Your task to perform on an android device: Open a new Chrome window Image 0: 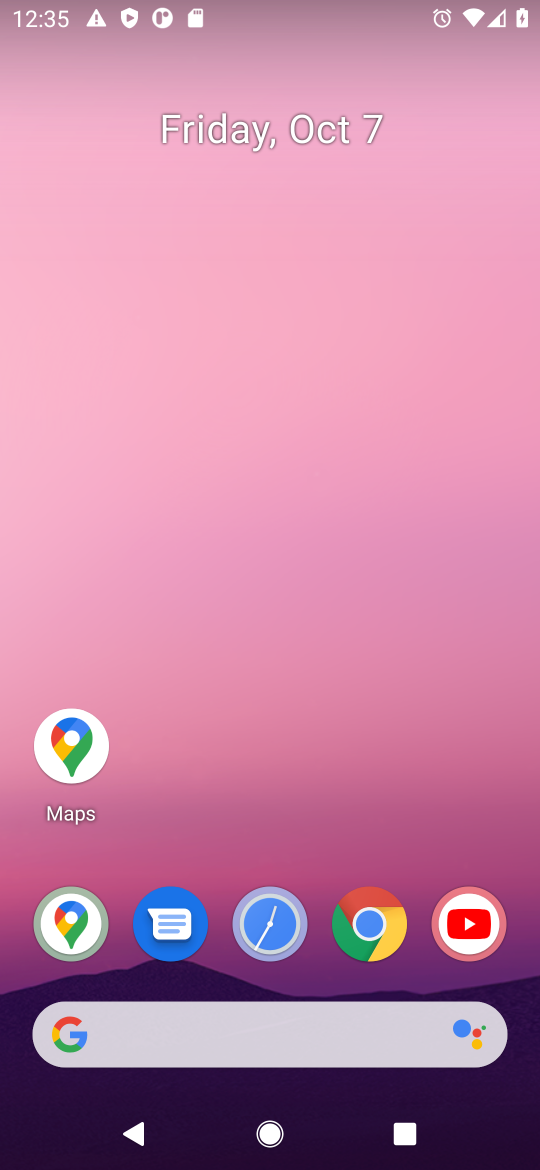
Step 0: click (356, 926)
Your task to perform on an android device: Open a new Chrome window Image 1: 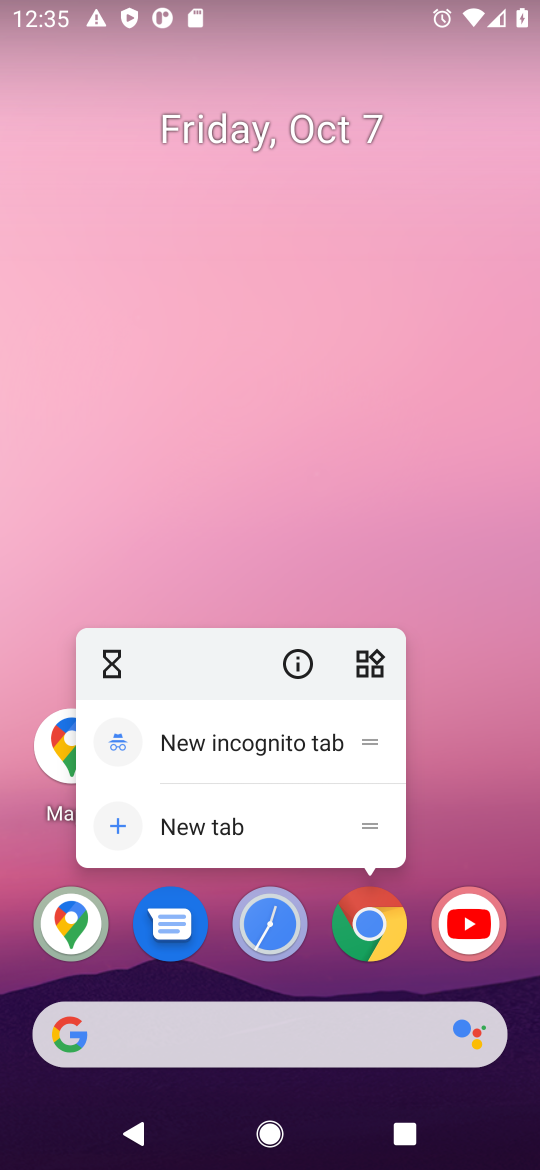
Step 1: click (375, 910)
Your task to perform on an android device: Open a new Chrome window Image 2: 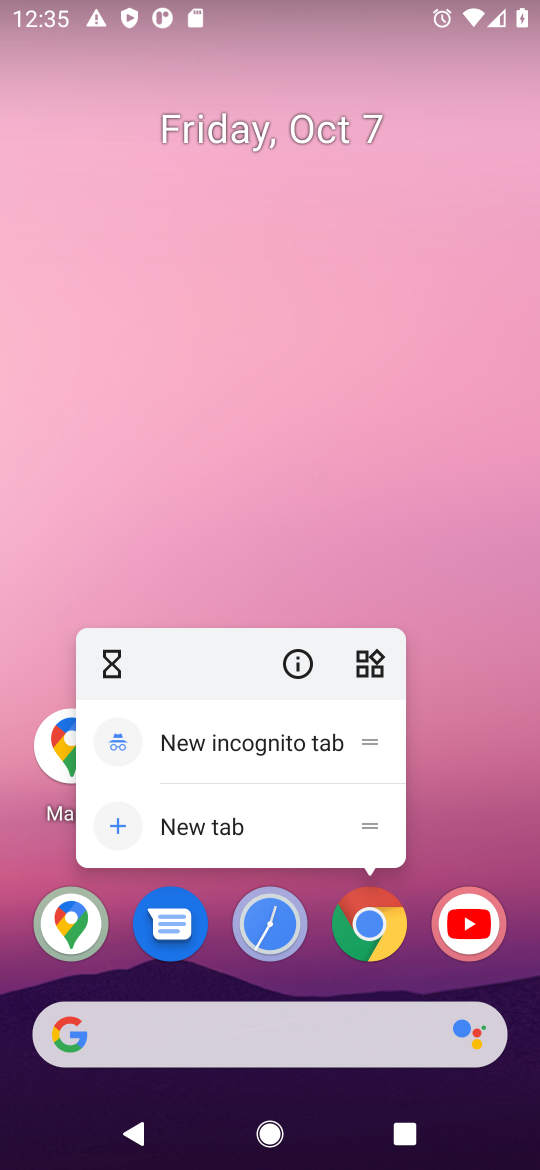
Step 2: click (375, 910)
Your task to perform on an android device: Open a new Chrome window Image 3: 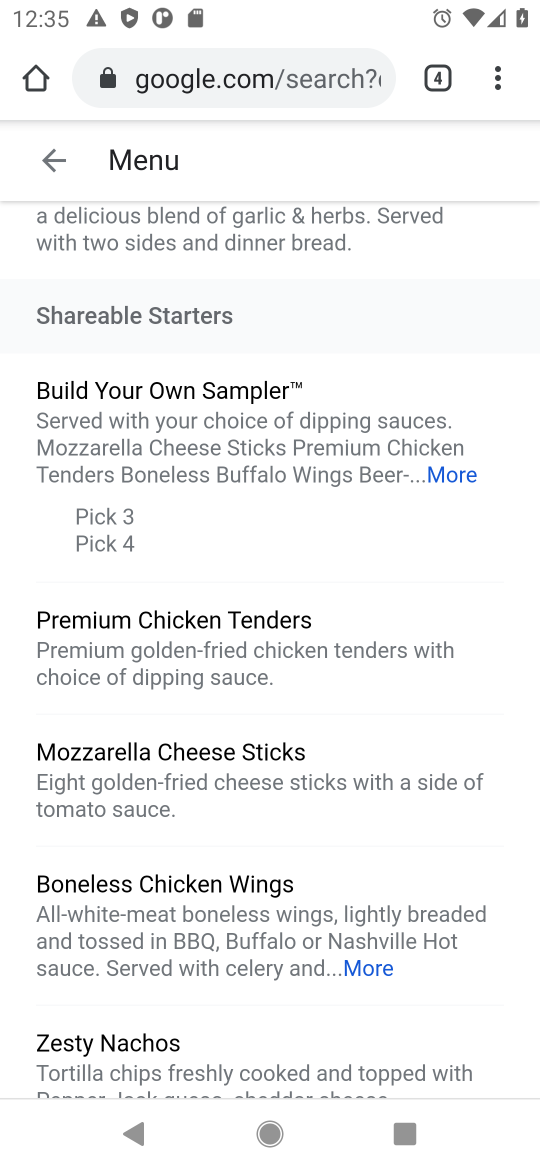
Step 3: task complete